Your task to perform on an android device: visit the assistant section in the google photos Image 0: 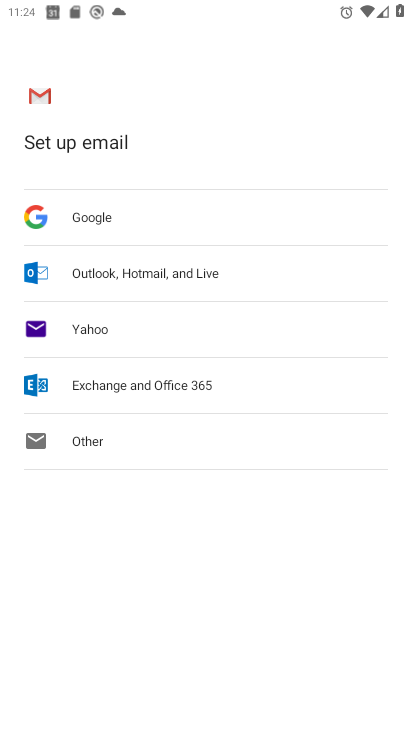
Step 0: press back button
Your task to perform on an android device: visit the assistant section in the google photos Image 1: 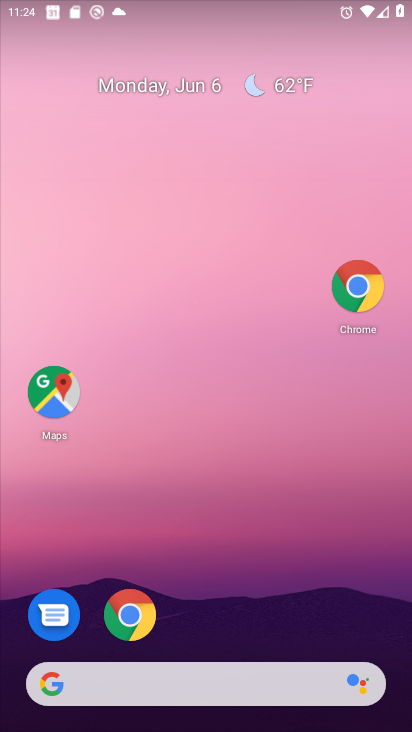
Step 1: drag from (251, 534) to (146, 77)
Your task to perform on an android device: visit the assistant section in the google photos Image 2: 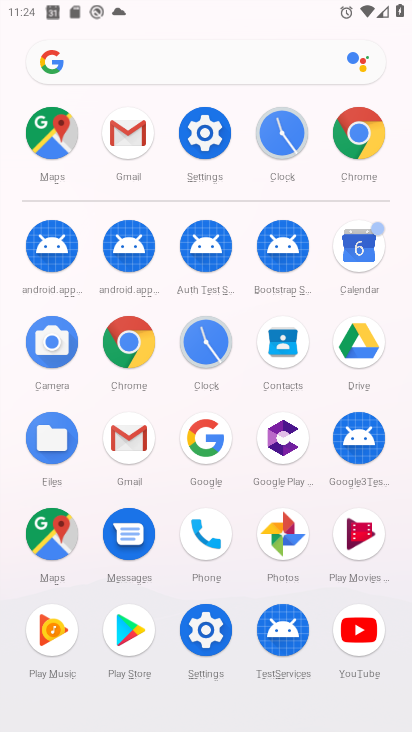
Step 2: click (277, 523)
Your task to perform on an android device: visit the assistant section in the google photos Image 3: 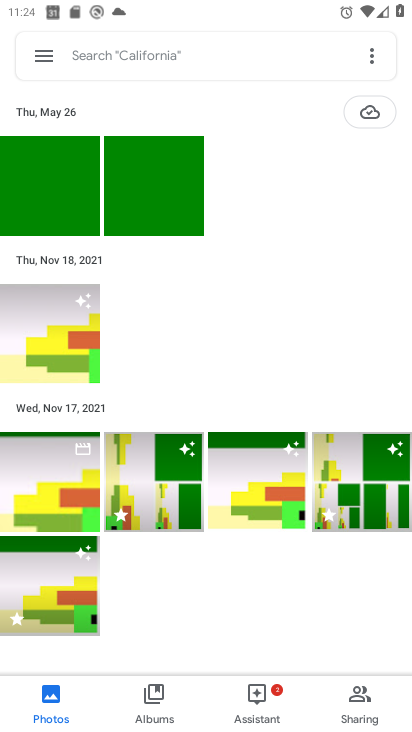
Step 3: click (262, 718)
Your task to perform on an android device: visit the assistant section in the google photos Image 4: 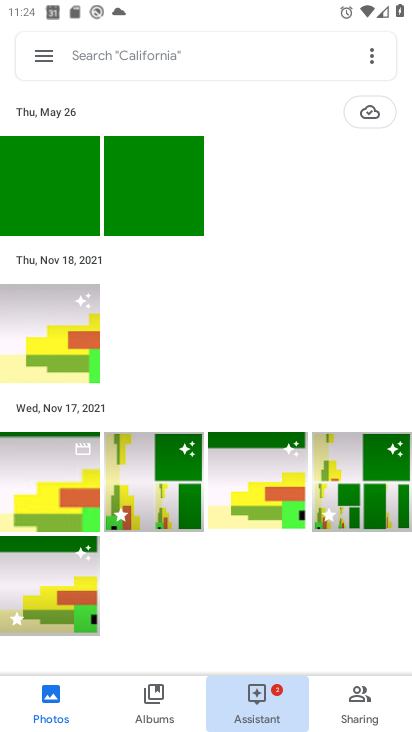
Step 4: click (262, 718)
Your task to perform on an android device: visit the assistant section in the google photos Image 5: 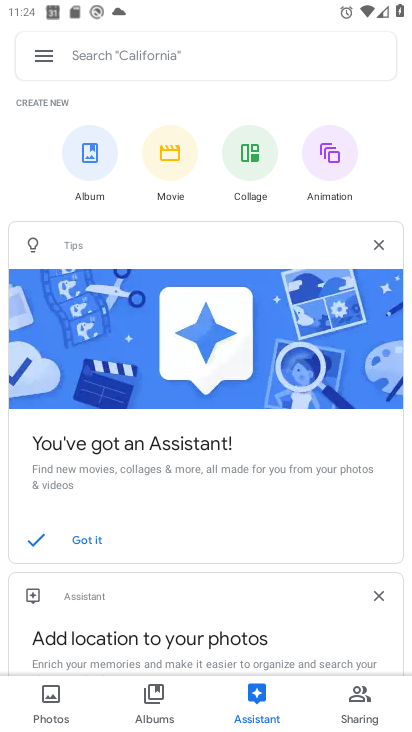
Step 5: task complete